Your task to perform on an android device: toggle improve location accuracy Image 0: 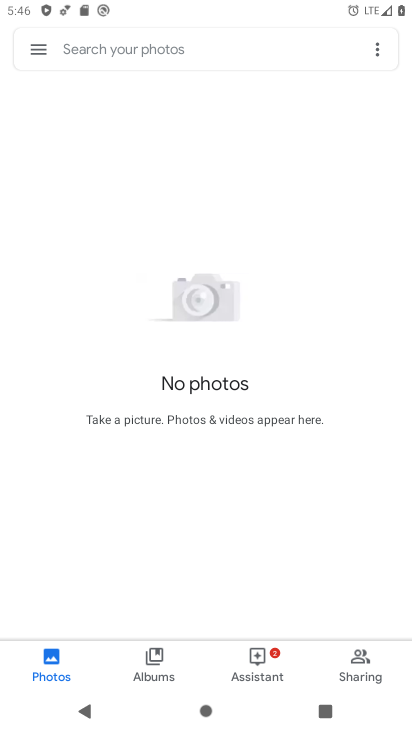
Step 0: press home button
Your task to perform on an android device: toggle improve location accuracy Image 1: 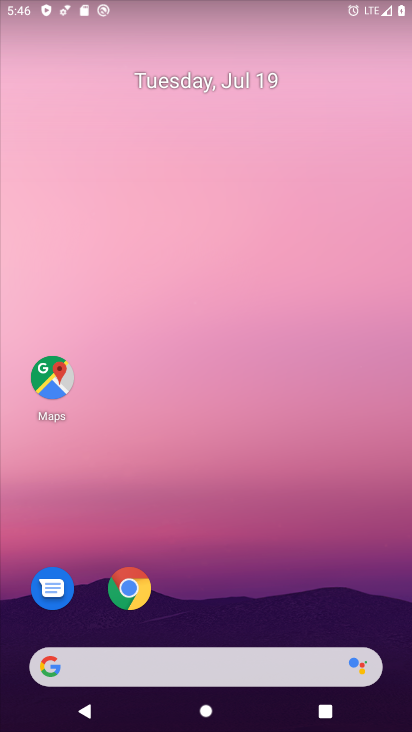
Step 1: drag from (219, 601) to (169, 102)
Your task to perform on an android device: toggle improve location accuracy Image 2: 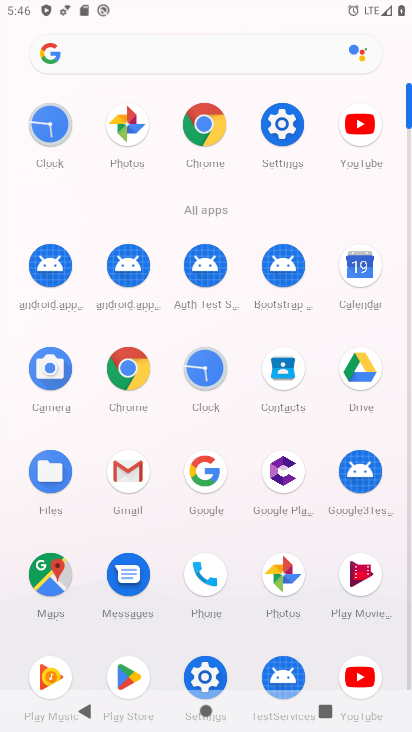
Step 2: click (290, 134)
Your task to perform on an android device: toggle improve location accuracy Image 3: 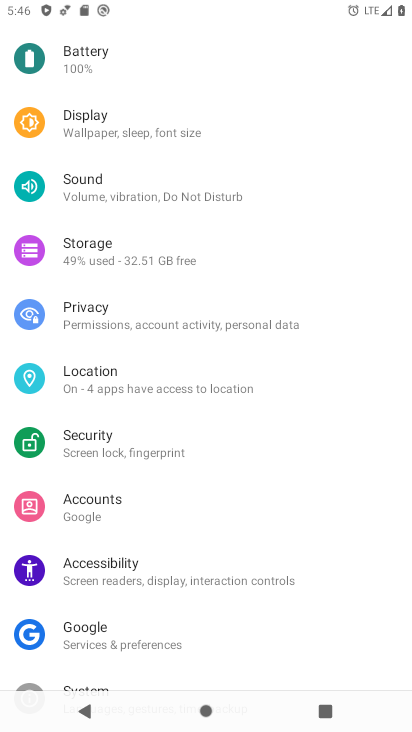
Step 3: click (192, 380)
Your task to perform on an android device: toggle improve location accuracy Image 4: 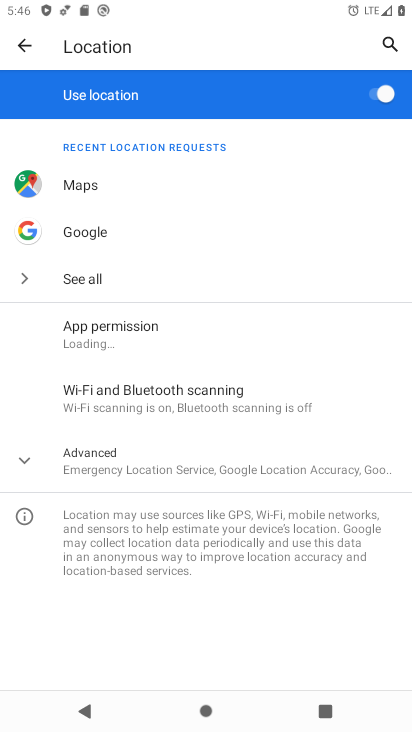
Step 4: click (211, 475)
Your task to perform on an android device: toggle improve location accuracy Image 5: 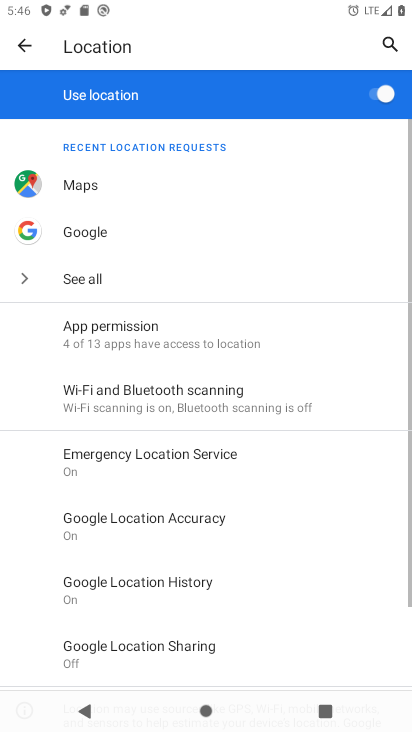
Step 5: click (174, 506)
Your task to perform on an android device: toggle improve location accuracy Image 6: 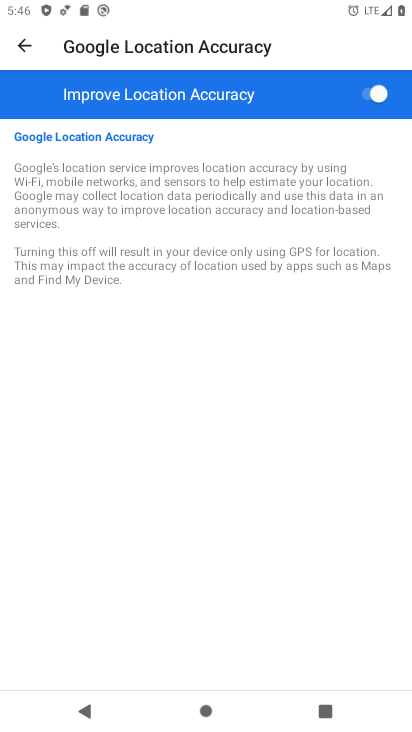
Step 6: click (375, 104)
Your task to perform on an android device: toggle improve location accuracy Image 7: 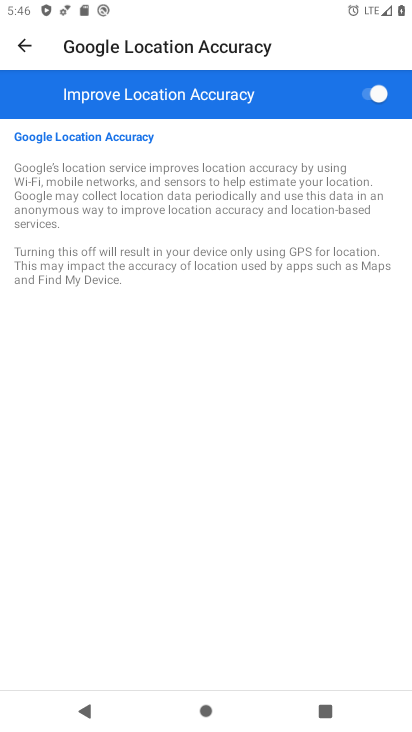
Step 7: click (375, 104)
Your task to perform on an android device: toggle improve location accuracy Image 8: 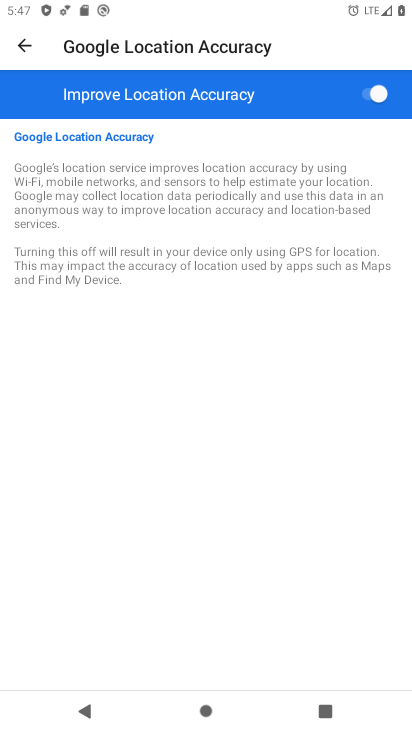
Step 8: task complete